Your task to perform on an android device: open a new tab in the chrome app Image 0: 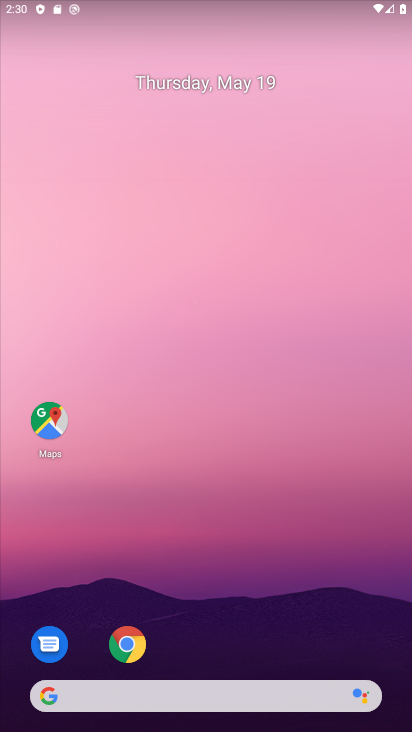
Step 0: click (120, 638)
Your task to perform on an android device: open a new tab in the chrome app Image 1: 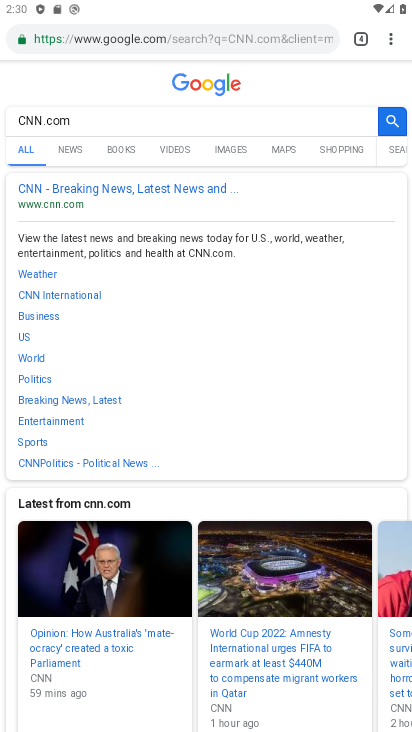
Step 1: click (399, 40)
Your task to perform on an android device: open a new tab in the chrome app Image 2: 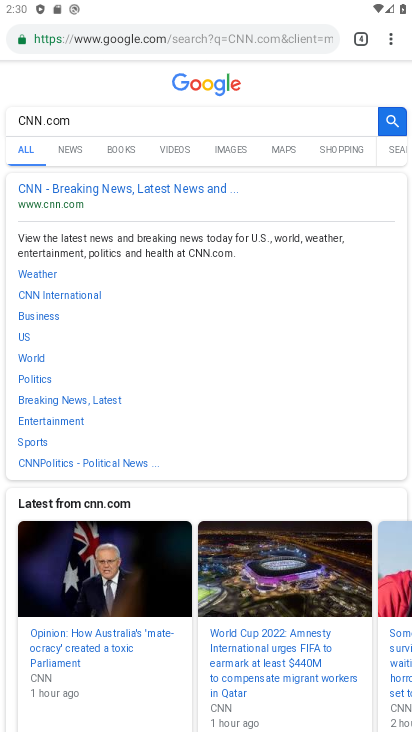
Step 2: click (387, 35)
Your task to perform on an android device: open a new tab in the chrome app Image 3: 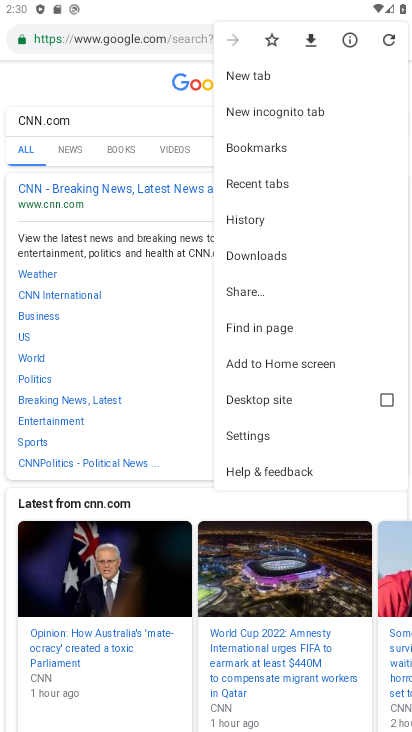
Step 3: click (260, 76)
Your task to perform on an android device: open a new tab in the chrome app Image 4: 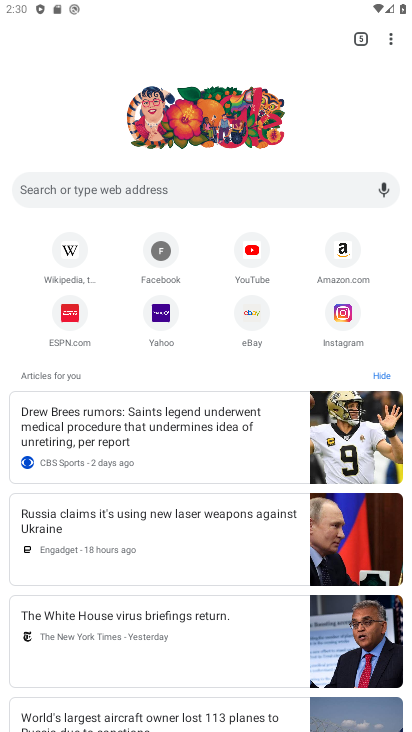
Step 4: task complete